Your task to perform on an android device: add a contact in the contacts app Image 0: 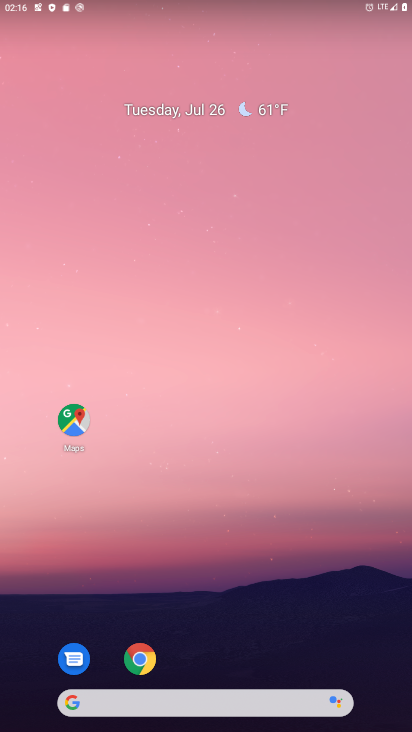
Step 0: click (213, 149)
Your task to perform on an android device: add a contact in the contacts app Image 1: 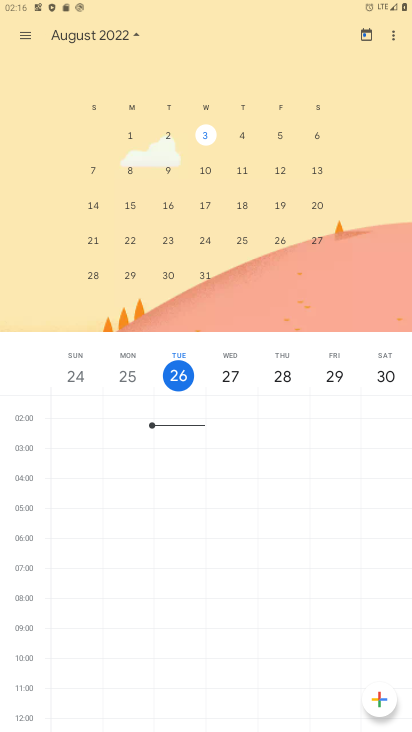
Step 1: press home button
Your task to perform on an android device: add a contact in the contacts app Image 2: 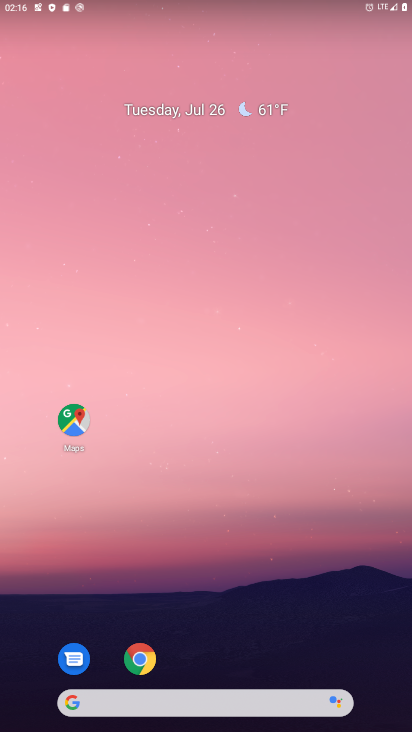
Step 2: drag from (268, 409) to (228, 0)
Your task to perform on an android device: add a contact in the contacts app Image 3: 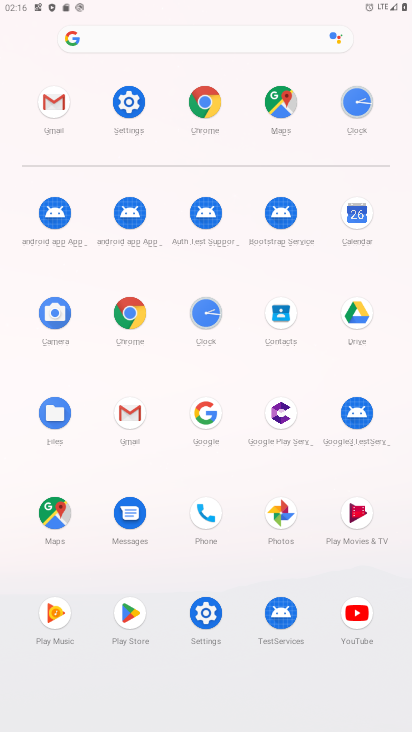
Step 3: click (277, 323)
Your task to perform on an android device: add a contact in the contacts app Image 4: 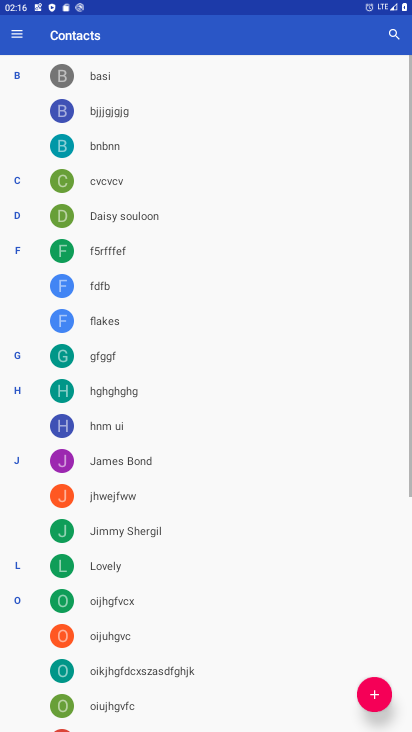
Step 4: click (376, 689)
Your task to perform on an android device: add a contact in the contacts app Image 5: 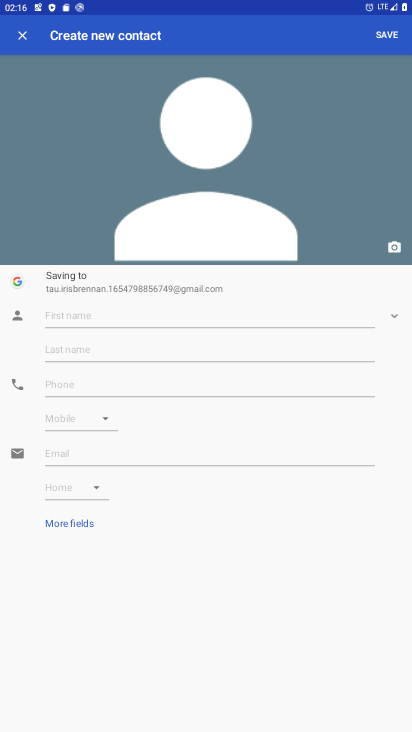
Step 5: click (187, 320)
Your task to perform on an android device: add a contact in the contacts app Image 6: 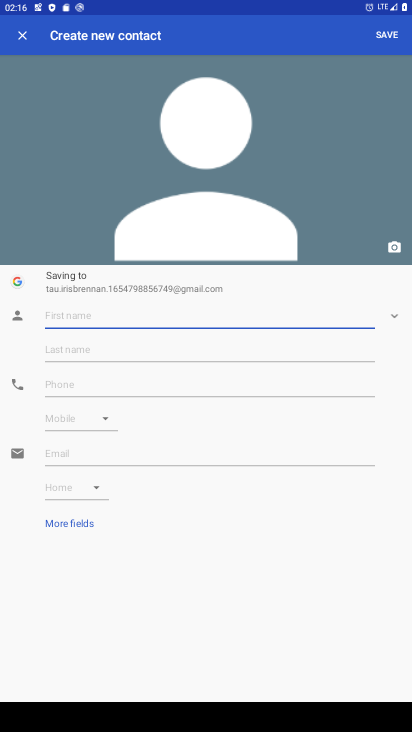
Step 6: type "thela"
Your task to perform on an android device: add a contact in the contacts app Image 7: 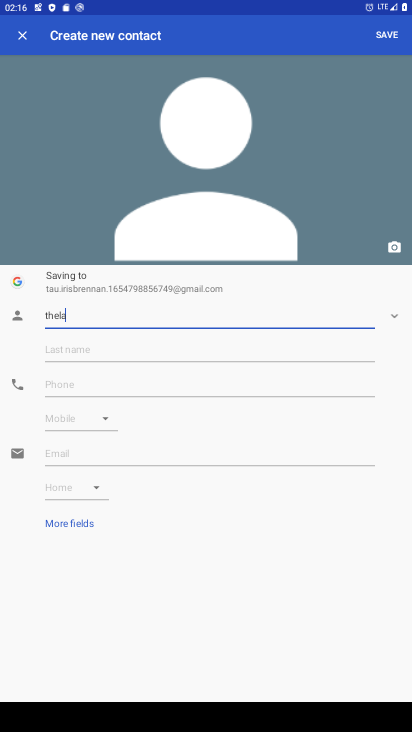
Step 7: click (393, 38)
Your task to perform on an android device: add a contact in the contacts app Image 8: 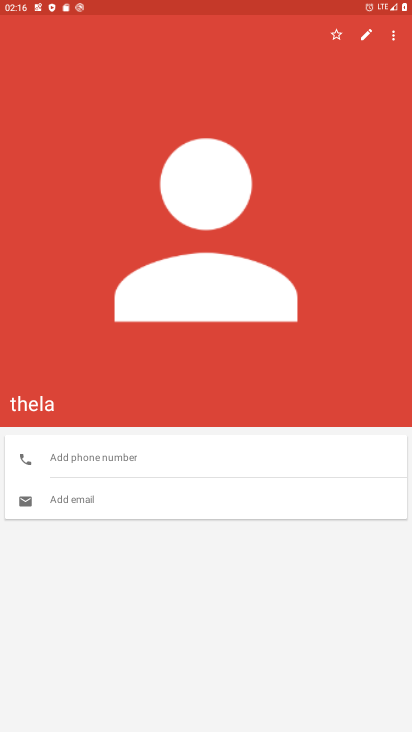
Step 8: task complete